Your task to perform on an android device: turn off wifi Image 0: 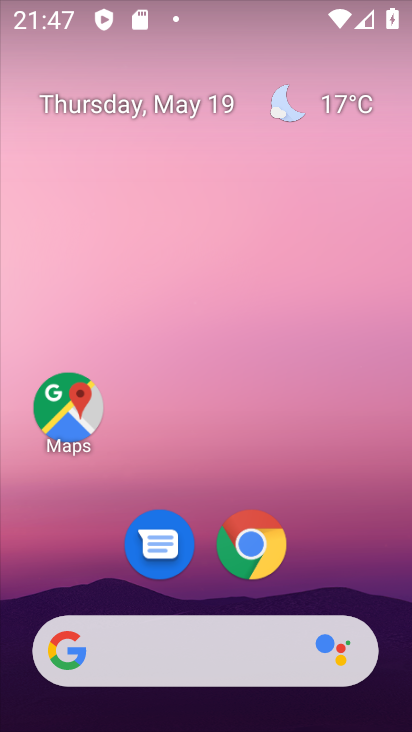
Step 0: drag from (197, 605) to (342, 13)
Your task to perform on an android device: turn off wifi Image 1: 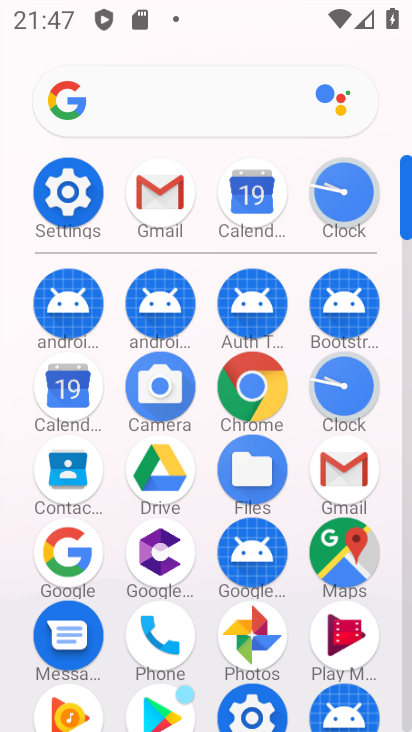
Step 1: click (68, 189)
Your task to perform on an android device: turn off wifi Image 2: 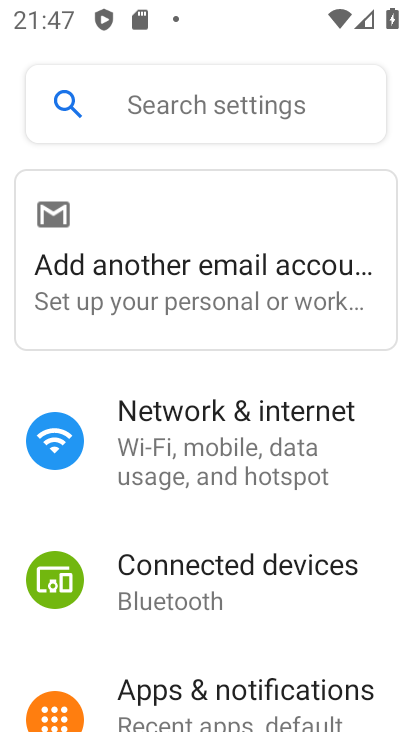
Step 2: click (264, 437)
Your task to perform on an android device: turn off wifi Image 3: 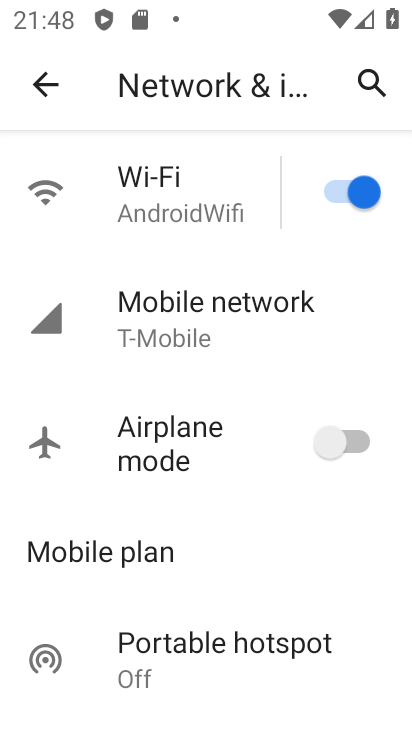
Step 3: click (352, 190)
Your task to perform on an android device: turn off wifi Image 4: 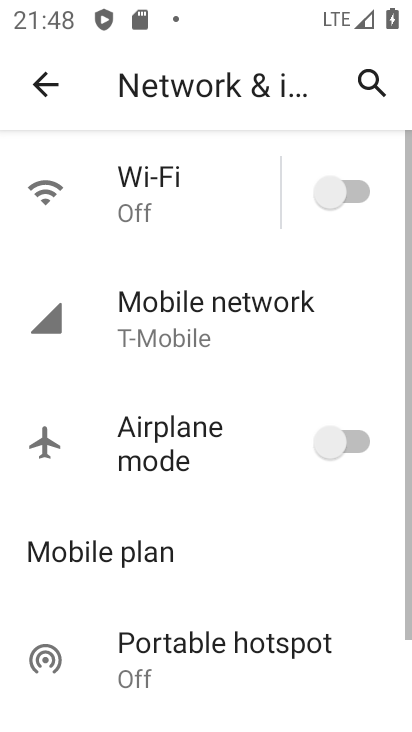
Step 4: task complete